Your task to perform on an android device: Open privacy settings Image 0: 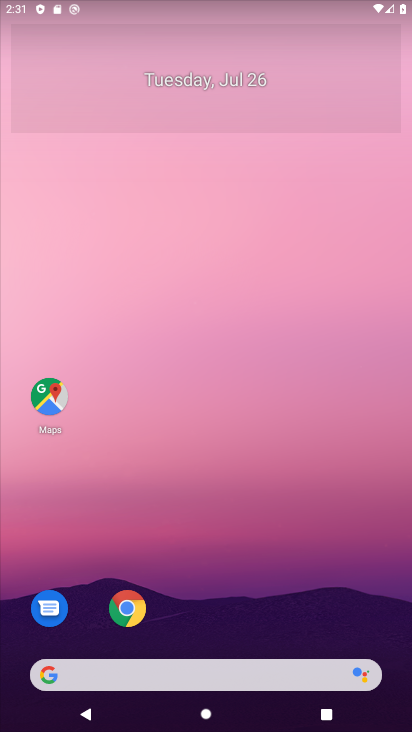
Step 0: drag from (277, 553) to (263, 226)
Your task to perform on an android device: Open privacy settings Image 1: 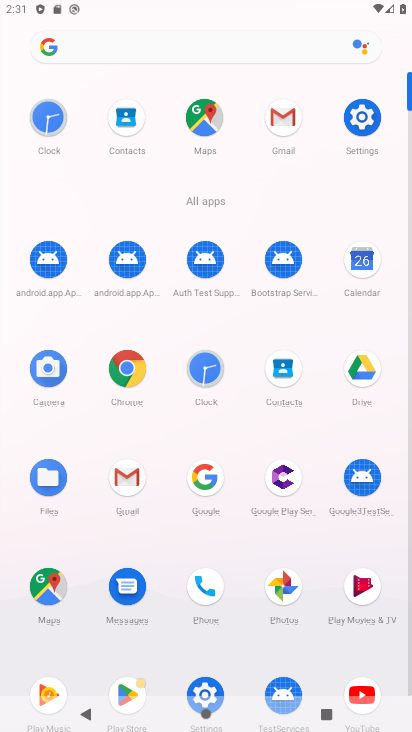
Step 1: click (363, 126)
Your task to perform on an android device: Open privacy settings Image 2: 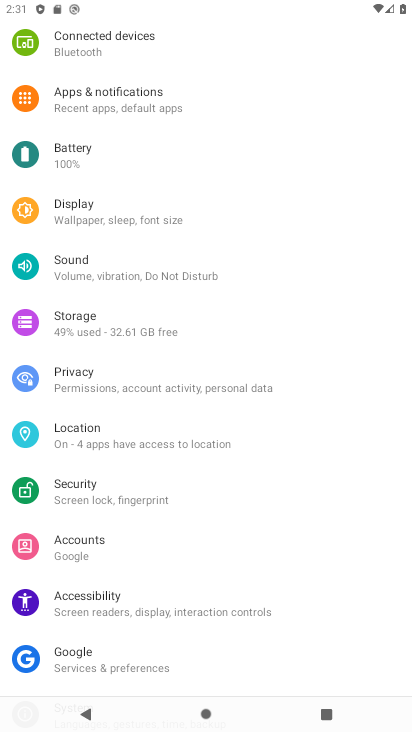
Step 2: click (105, 369)
Your task to perform on an android device: Open privacy settings Image 3: 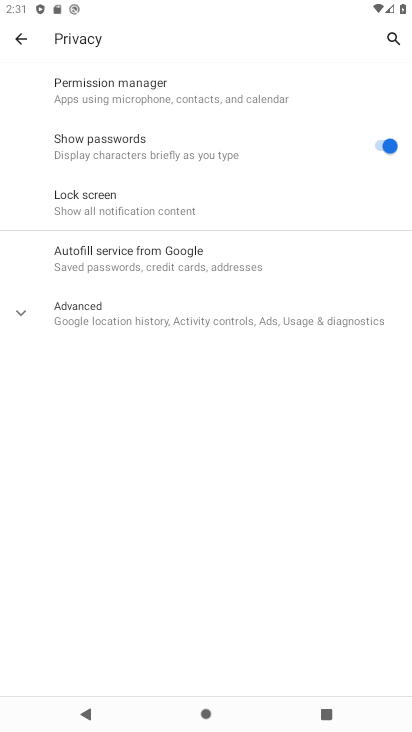
Step 3: task complete